Your task to perform on an android device: Go to Amazon Image 0: 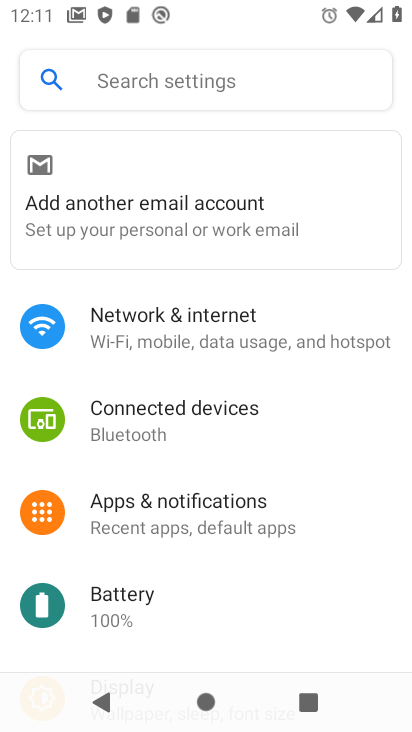
Step 0: press home button
Your task to perform on an android device: Go to Amazon Image 1: 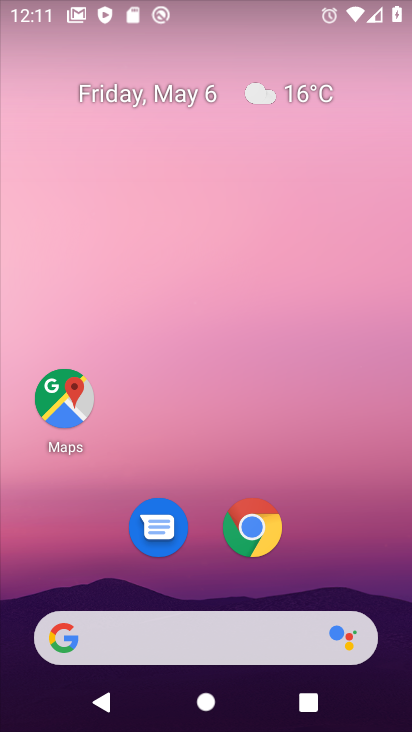
Step 1: drag from (318, 563) to (93, 170)
Your task to perform on an android device: Go to Amazon Image 2: 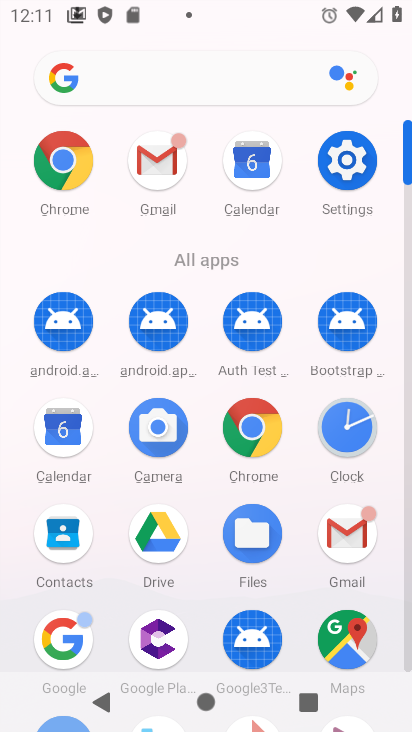
Step 2: click (251, 437)
Your task to perform on an android device: Go to Amazon Image 3: 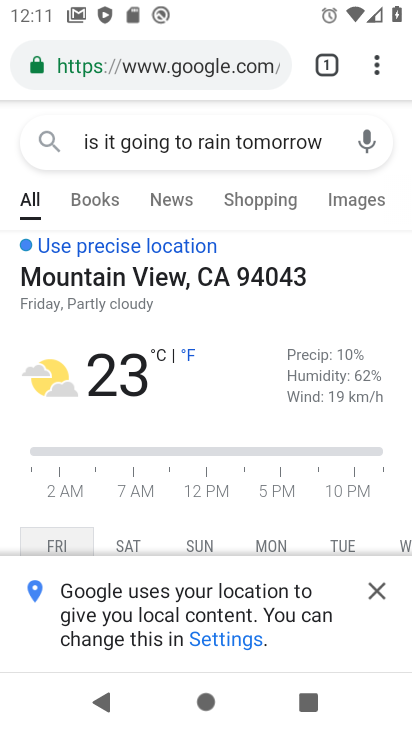
Step 3: click (322, 62)
Your task to perform on an android device: Go to Amazon Image 4: 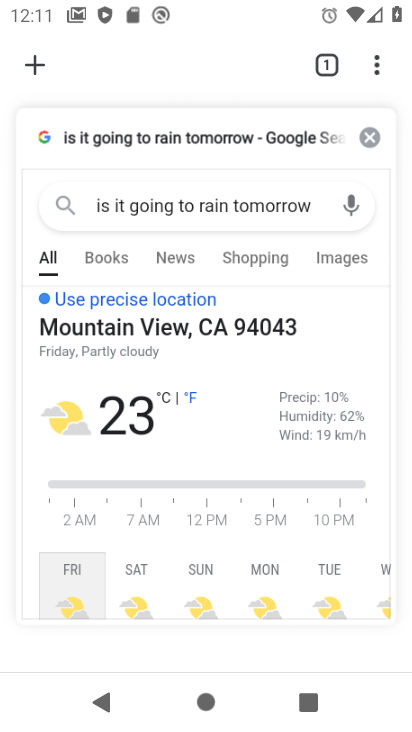
Step 4: click (38, 64)
Your task to perform on an android device: Go to Amazon Image 5: 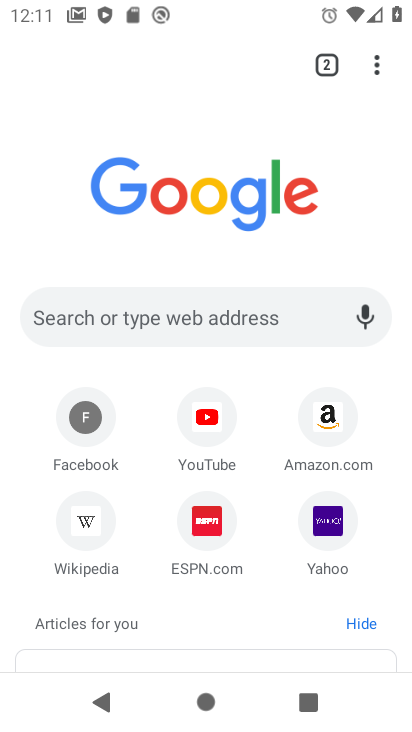
Step 5: click (325, 427)
Your task to perform on an android device: Go to Amazon Image 6: 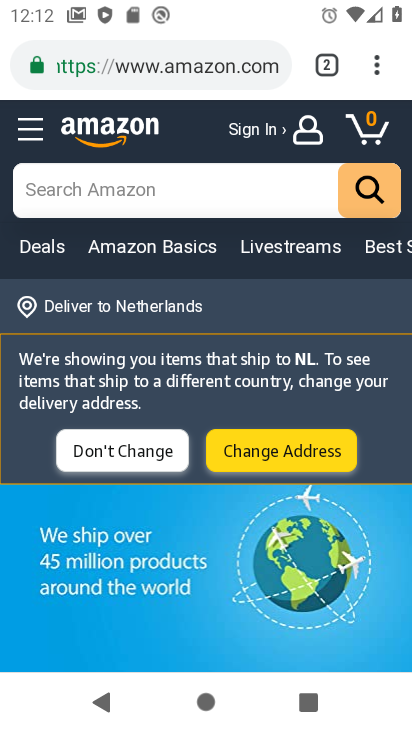
Step 6: task complete